Your task to perform on an android device: turn on priority inbox in the gmail app Image 0: 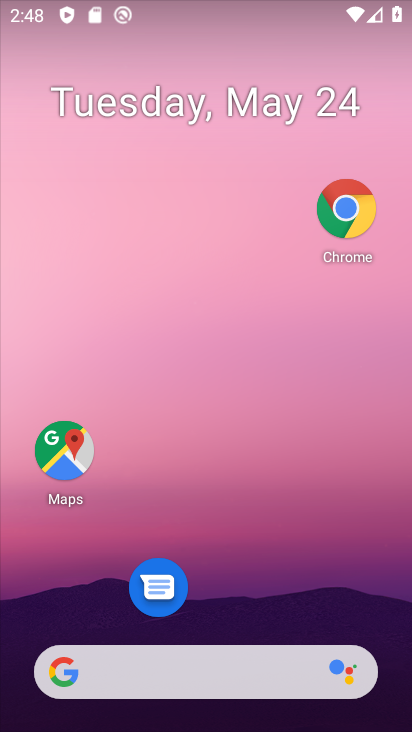
Step 0: drag from (221, 599) to (284, 225)
Your task to perform on an android device: turn on priority inbox in the gmail app Image 1: 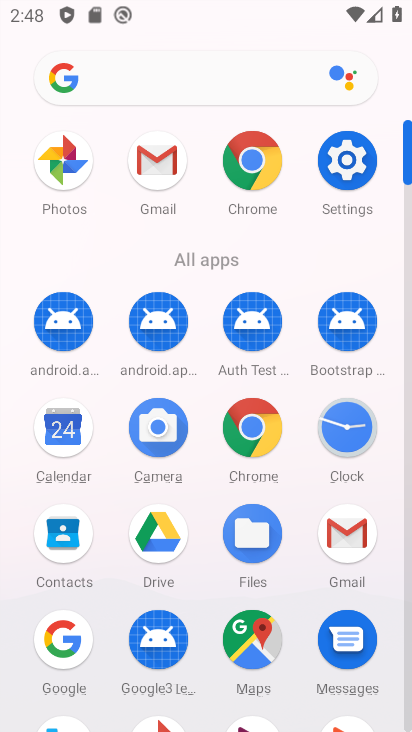
Step 1: click (355, 527)
Your task to perform on an android device: turn on priority inbox in the gmail app Image 2: 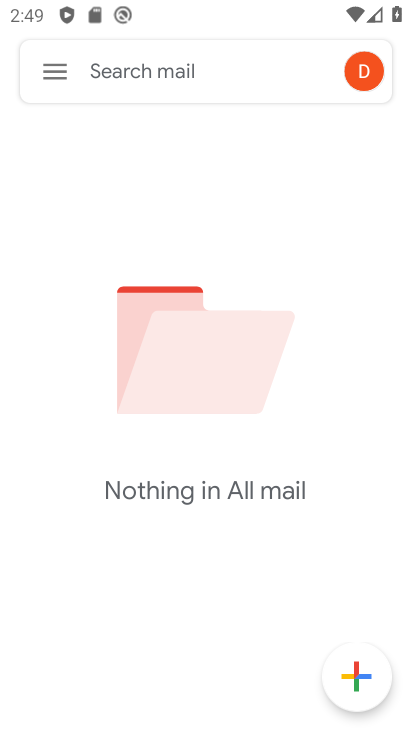
Step 2: click (65, 64)
Your task to perform on an android device: turn on priority inbox in the gmail app Image 3: 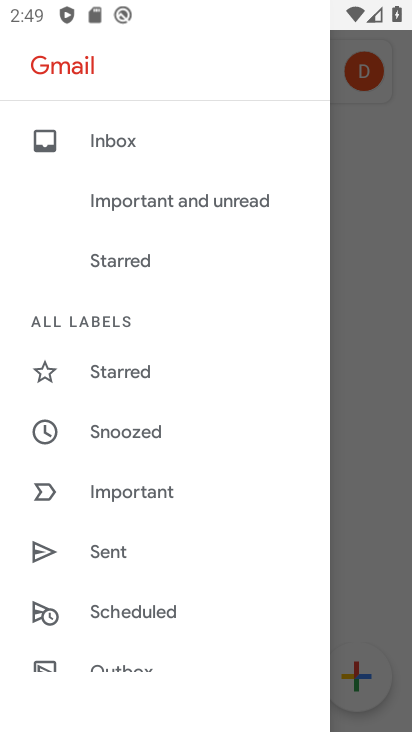
Step 3: drag from (129, 593) to (213, 341)
Your task to perform on an android device: turn on priority inbox in the gmail app Image 4: 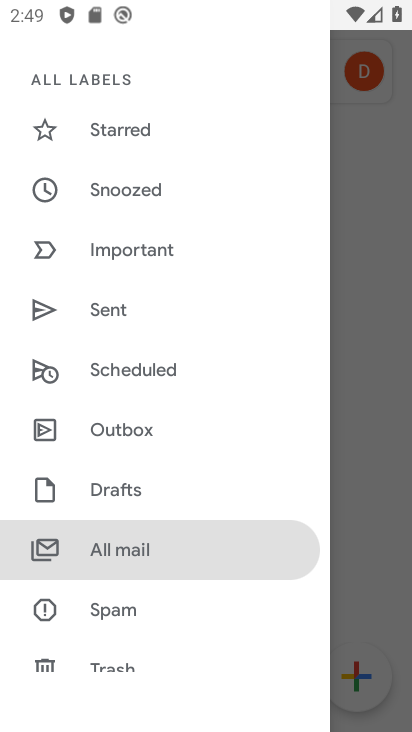
Step 4: drag from (166, 628) to (296, 215)
Your task to perform on an android device: turn on priority inbox in the gmail app Image 5: 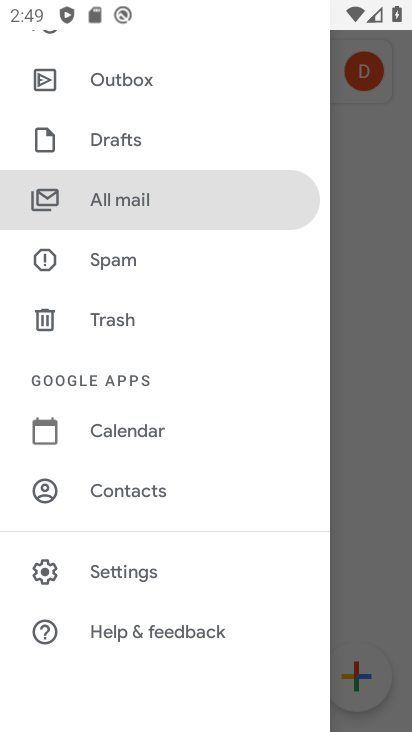
Step 5: click (137, 568)
Your task to perform on an android device: turn on priority inbox in the gmail app Image 6: 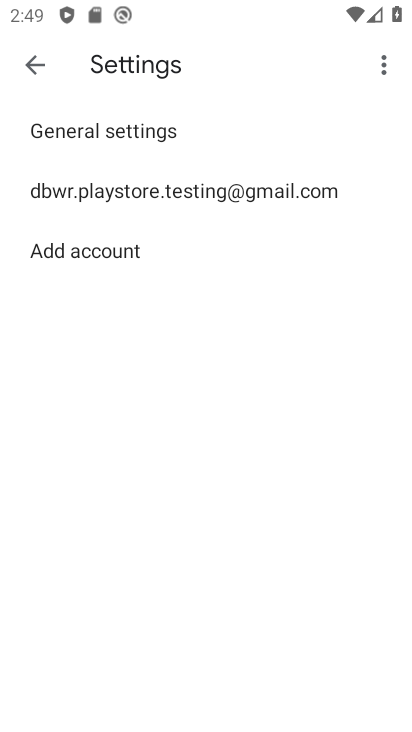
Step 6: click (227, 188)
Your task to perform on an android device: turn on priority inbox in the gmail app Image 7: 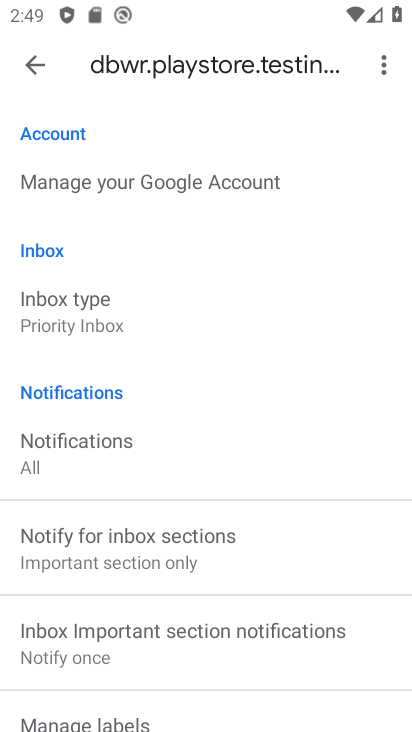
Step 7: click (96, 318)
Your task to perform on an android device: turn on priority inbox in the gmail app Image 8: 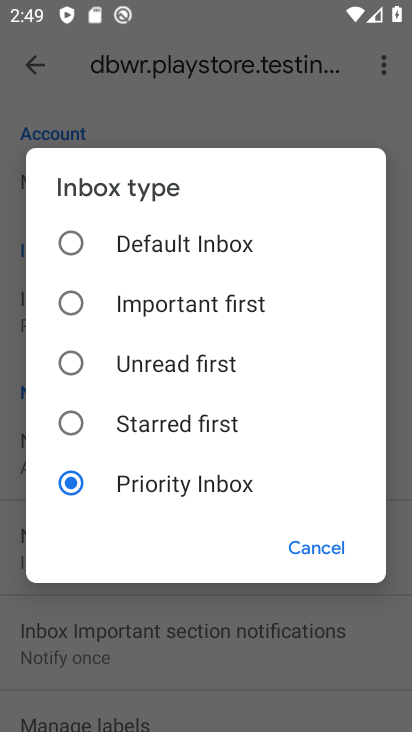
Step 8: task complete